Your task to perform on an android device: change timer sound Image 0: 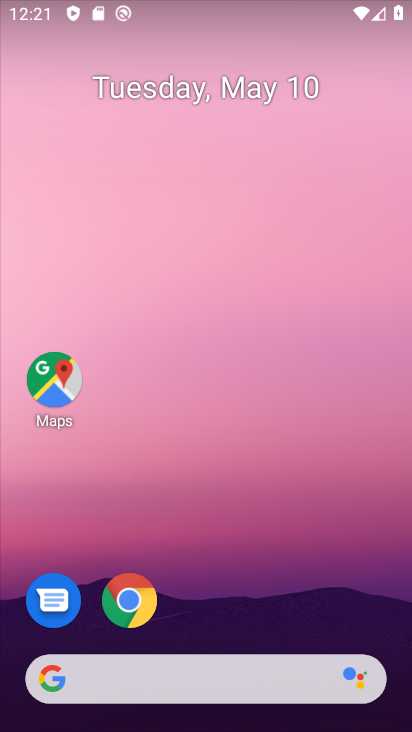
Step 0: drag from (211, 647) to (311, 238)
Your task to perform on an android device: change timer sound Image 1: 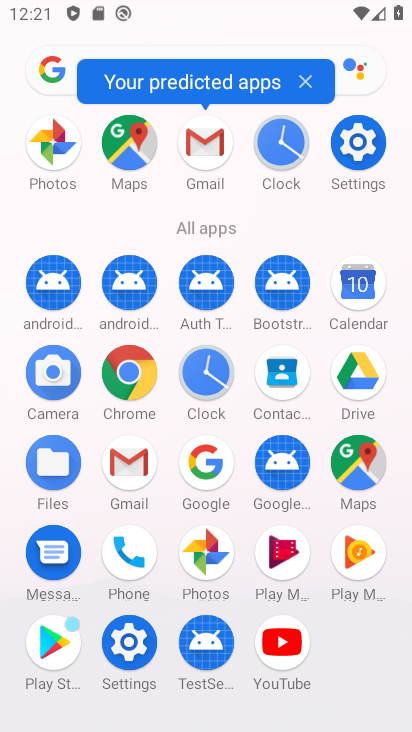
Step 1: click (200, 379)
Your task to perform on an android device: change timer sound Image 2: 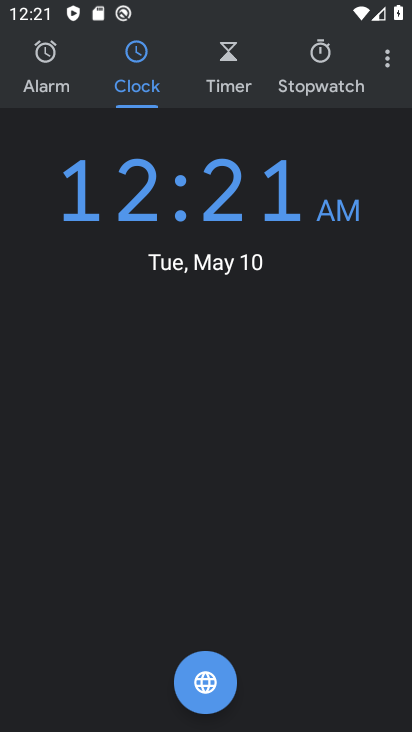
Step 2: click (393, 57)
Your task to perform on an android device: change timer sound Image 3: 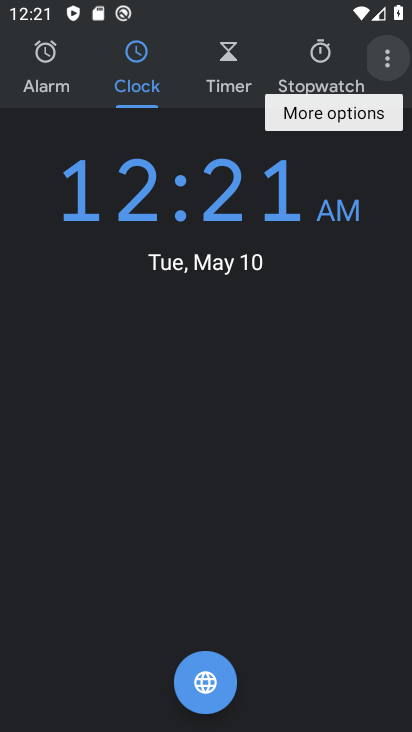
Step 3: click (390, 58)
Your task to perform on an android device: change timer sound Image 4: 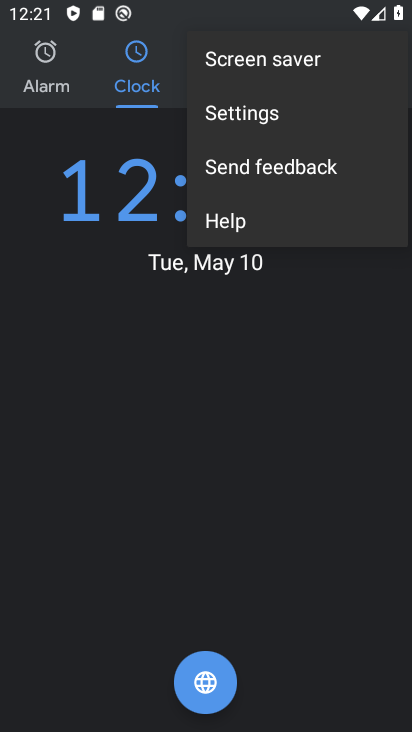
Step 4: click (364, 107)
Your task to perform on an android device: change timer sound Image 5: 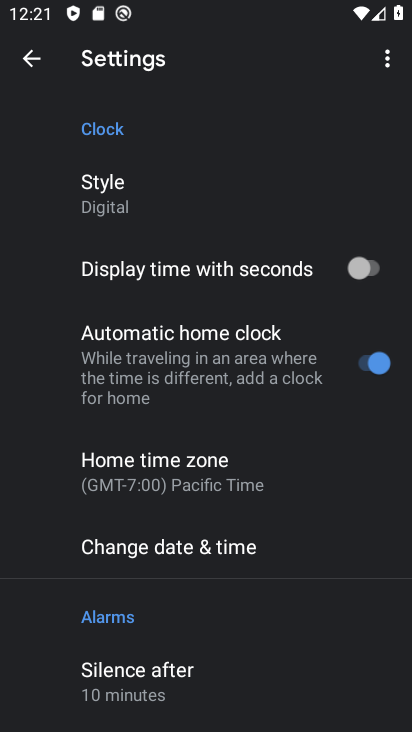
Step 5: drag from (177, 660) to (318, 303)
Your task to perform on an android device: change timer sound Image 6: 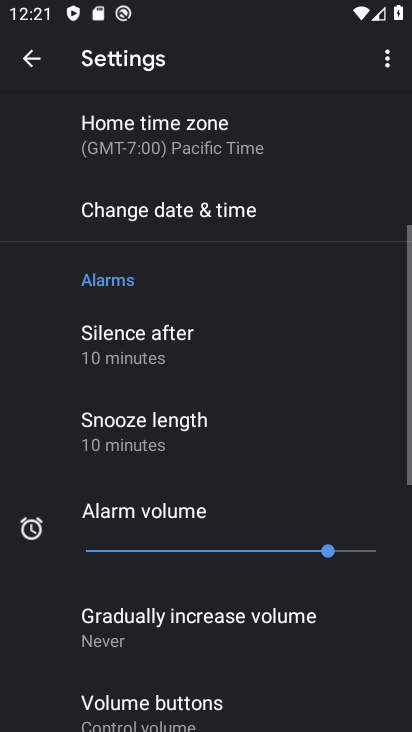
Step 6: drag from (186, 651) to (314, 312)
Your task to perform on an android device: change timer sound Image 7: 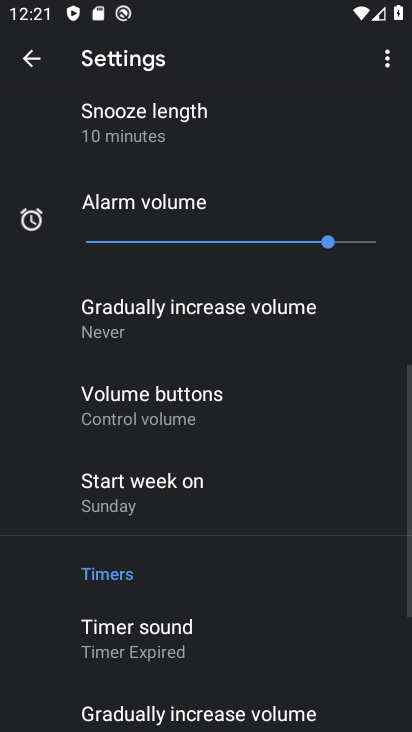
Step 7: drag from (195, 644) to (263, 466)
Your task to perform on an android device: change timer sound Image 8: 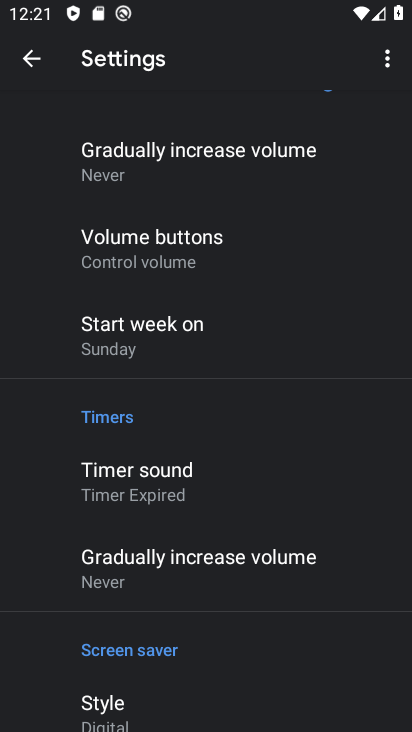
Step 8: click (209, 467)
Your task to perform on an android device: change timer sound Image 9: 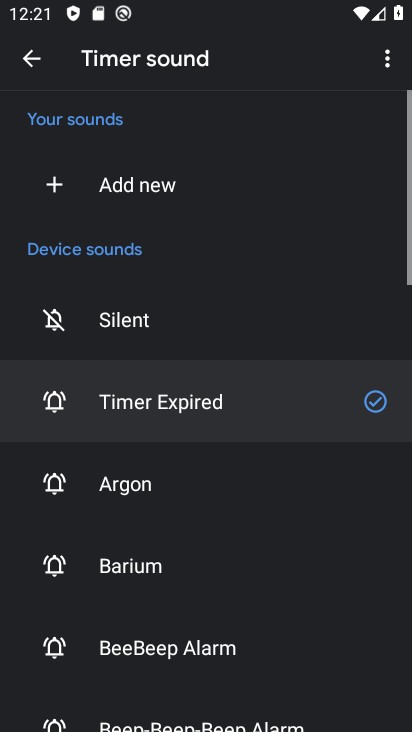
Step 9: drag from (168, 633) to (269, 357)
Your task to perform on an android device: change timer sound Image 10: 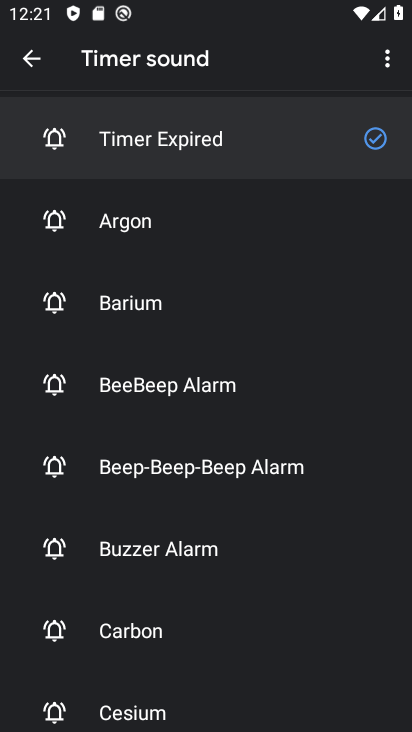
Step 10: click (177, 643)
Your task to perform on an android device: change timer sound Image 11: 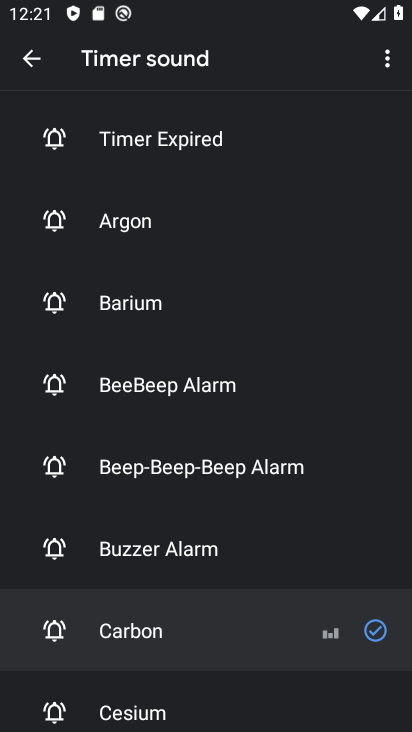
Step 11: task complete